Your task to perform on an android device: toggle data saver in the chrome app Image 0: 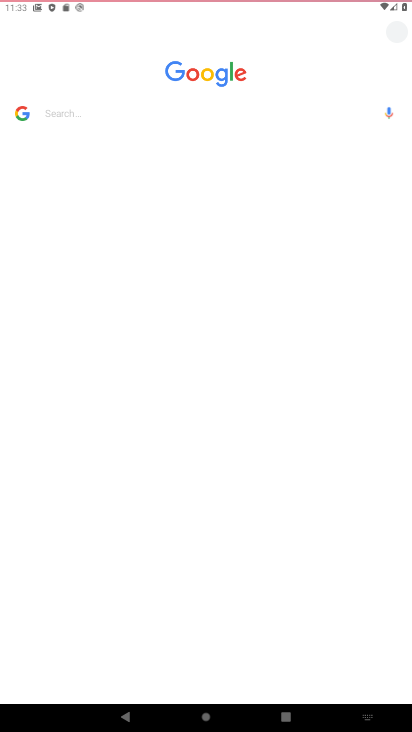
Step 0: click (202, 199)
Your task to perform on an android device: toggle data saver in the chrome app Image 1: 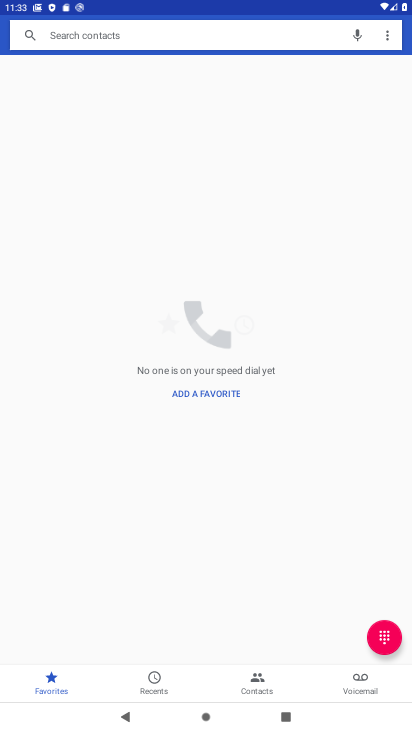
Step 1: press home button
Your task to perform on an android device: toggle data saver in the chrome app Image 2: 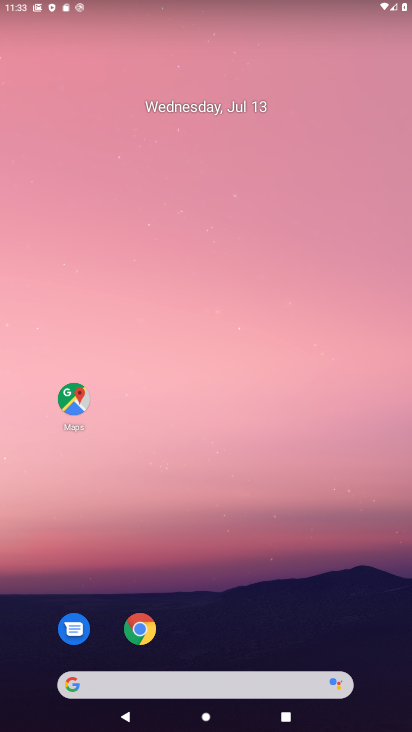
Step 2: click (147, 624)
Your task to perform on an android device: toggle data saver in the chrome app Image 3: 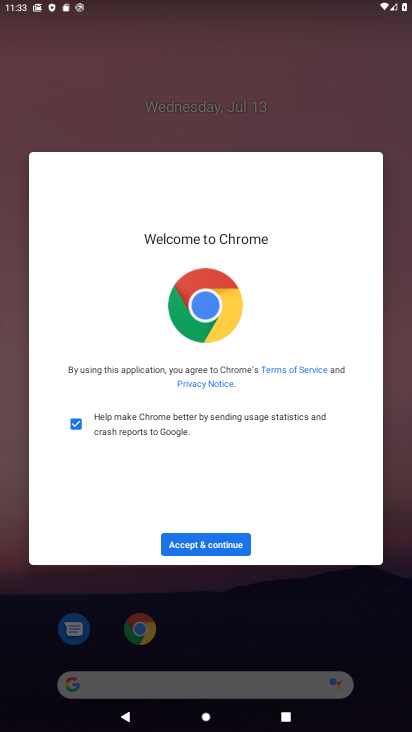
Step 3: click (226, 543)
Your task to perform on an android device: toggle data saver in the chrome app Image 4: 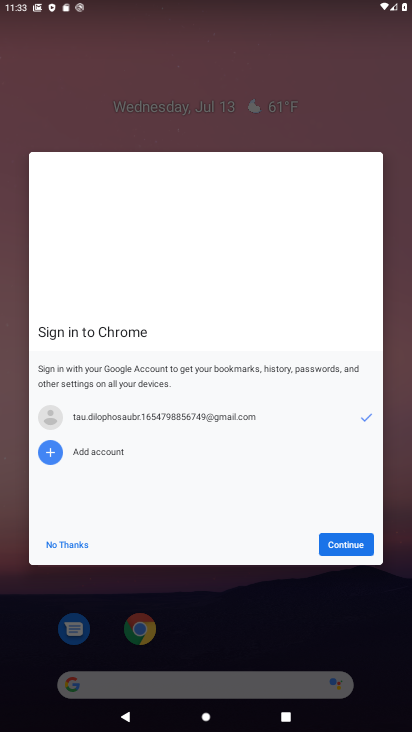
Step 4: click (329, 544)
Your task to perform on an android device: toggle data saver in the chrome app Image 5: 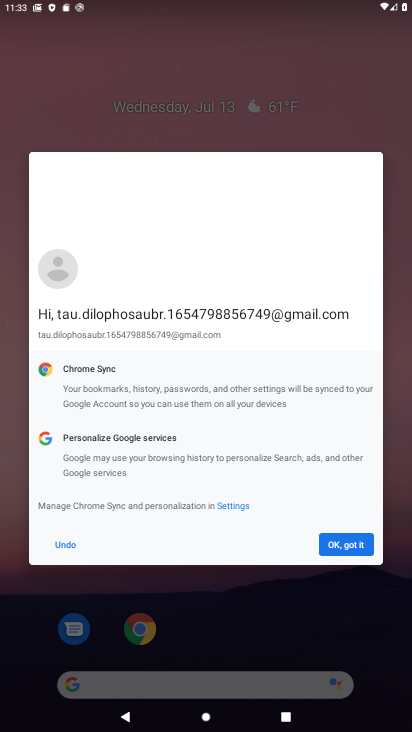
Step 5: click (363, 540)
Your task to perform on an android device: toggle data saver in the chrome app Image 6: 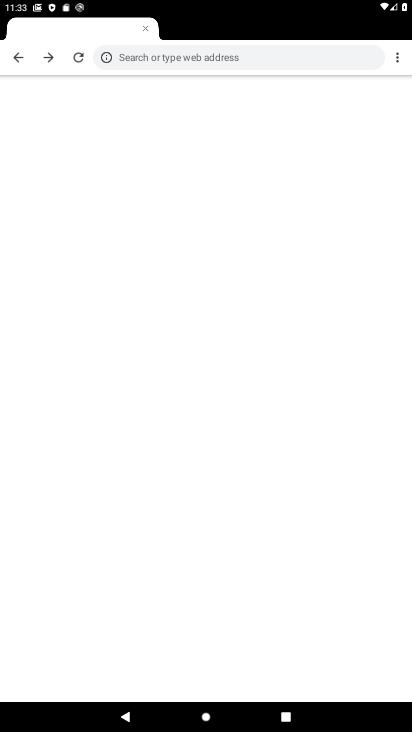
Step 6: click (391, 56)
Your task to perform on an android device: toggle data saver in the chrome app Image 7: 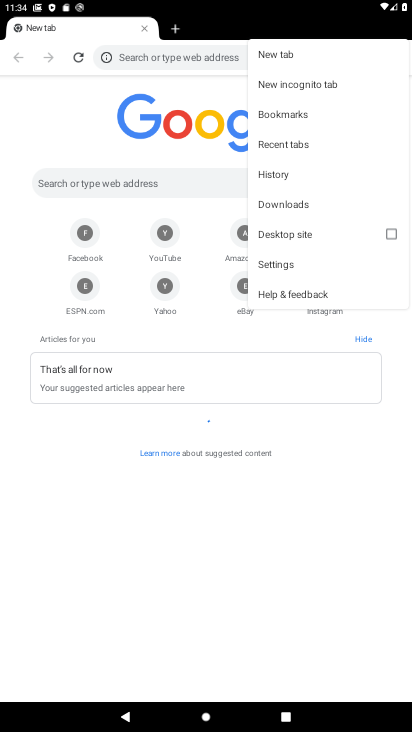
Step 7: click (292, 260)
Your task to perform on an android device: toggle data saver in the chrome app Image 8: 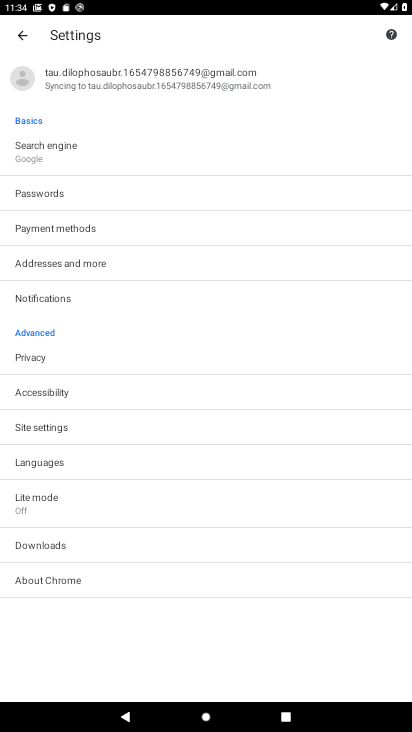
Step 8: click (94, 518)
Your task to perform on an android device: toggle data saver in the chrome app Image 9: 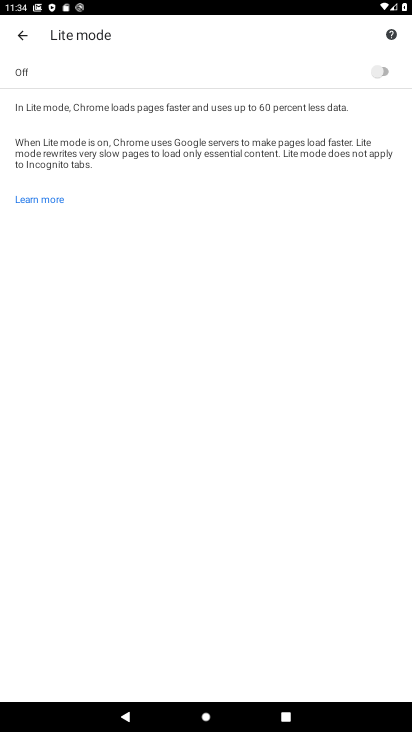
Step 9: click (378, 75)
Your task to perform on an android device: toggle data saver in the chrome app Image 10: 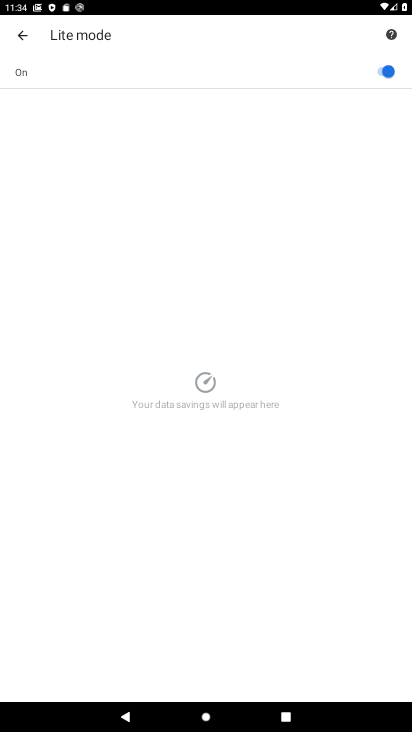
Step 10: task complete